Your task to perform on an android device: Find coffee shops on Maps Image 0: 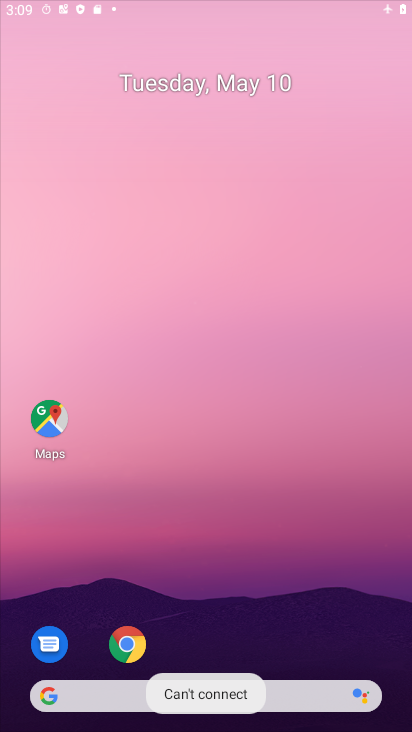
Step 0: drag from (254, 456) to (289, 195)
Your task to perform on an android device: Find coffee shops on Maps Image 1: 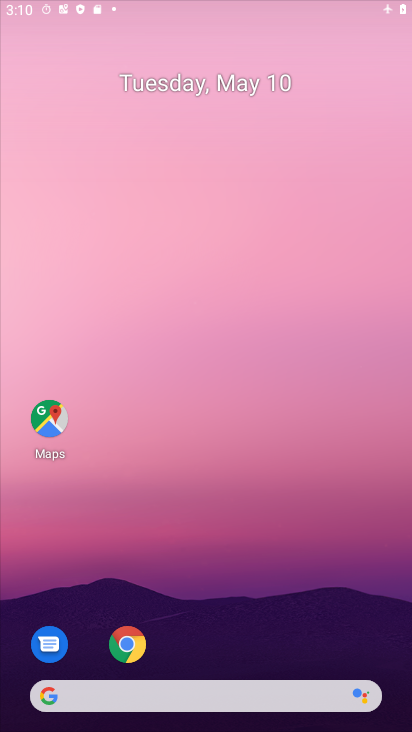
Step 1: drag from (230, 646) to (261, 176)
Your task to perform on an android device: Find coffee shops on Maps Image 2: 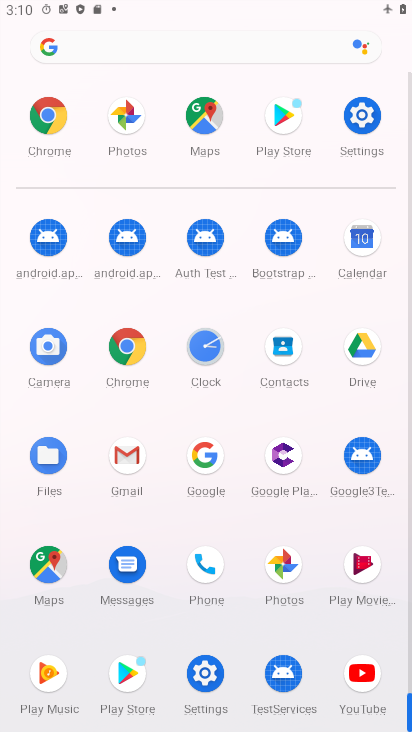
Step 2: click (60, 573)
Your task to perform on an android device: Find coffee shops on Maps Image 3: 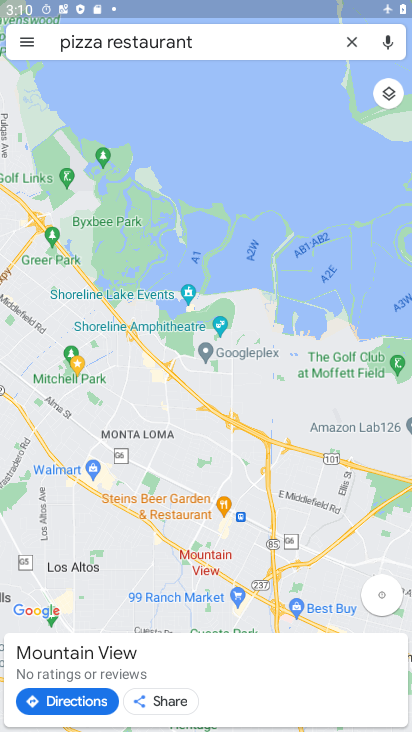
Step 3: click (348, 45)
Your task to perform on an android device: Find coffee shops on Maps Image 4: 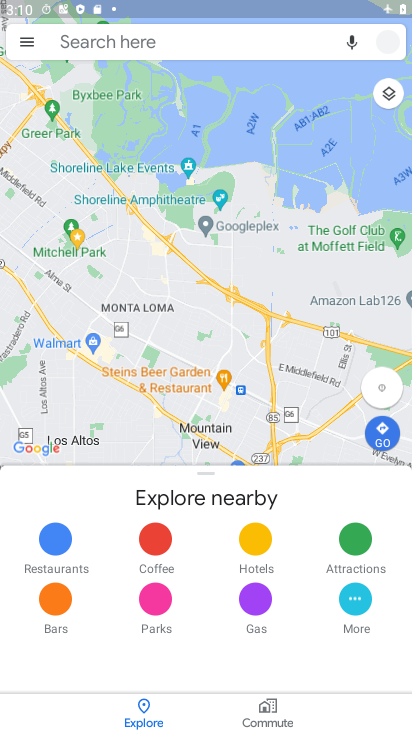
Step 4: click (250, 46)
Your task to perform on an android device: Find coffee shops on Maps Image 5: 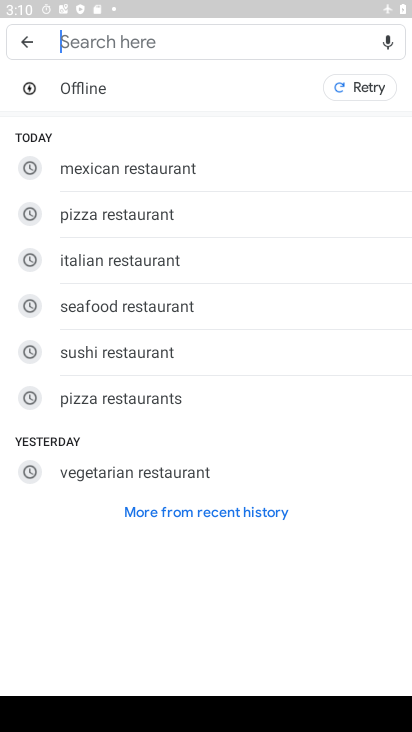
Step 5: type "coffee shops"
Your task to perform on an android device: Find coffee shops on Maps Image 6: 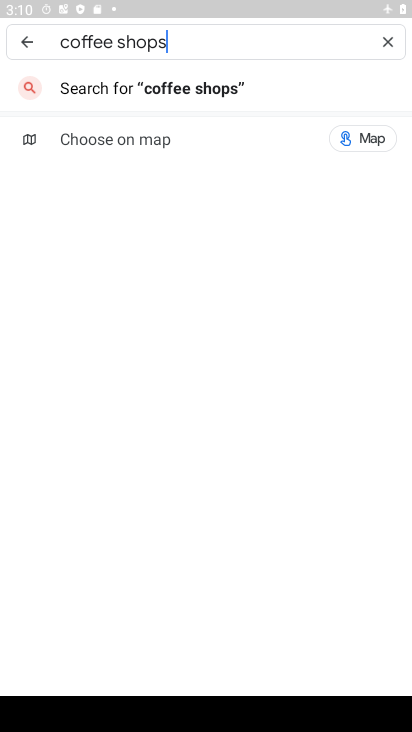
Step 6: type ""
Your task to perform on an android device: Find coffee shops on Maps Image 7: 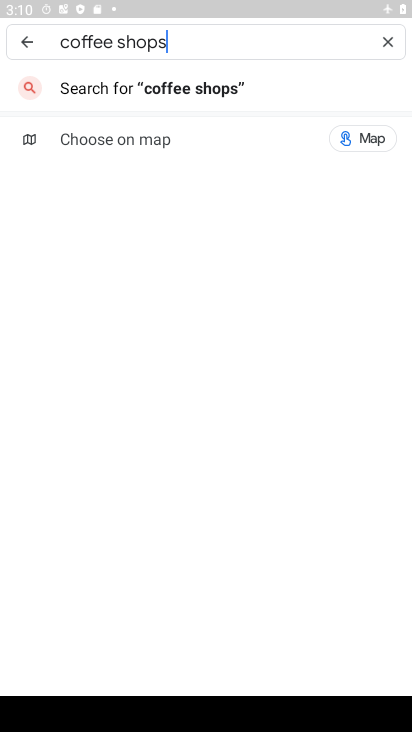
Step 7: click (221, 101)
Your task to perform on an android device: Find coffee shops on Maps Image 8: 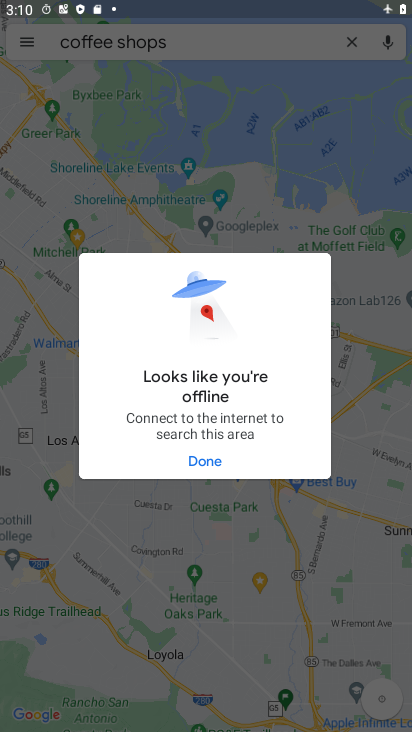
Step 8: click (201, 464)
Your task to perform on an android device: Find coffee shops on Maps Image 9: 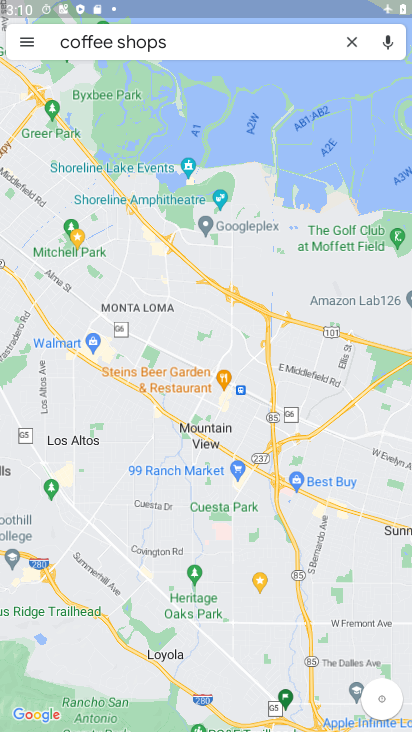
Step 9: task complete